Your task to perform on an android device: Open display settings Image 0: 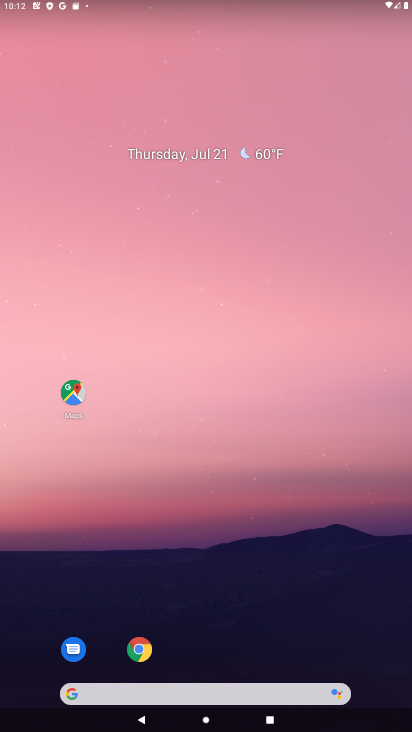
Step 0: drag from (202, 688) to (249, 282)
Your task to perform on an android device: Open display settings Image 1: 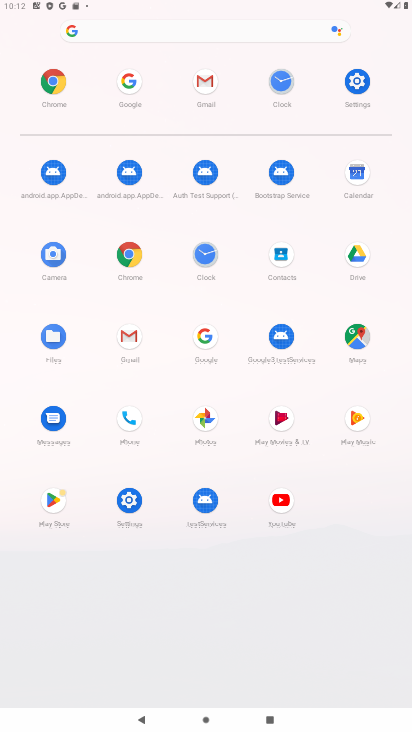
Step 1: click (357, 83)
Your task to perform on an android device: Open display settings Image 2: 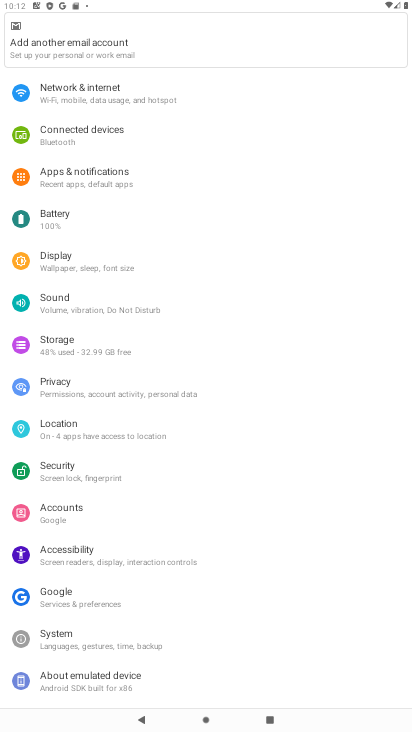
Step 2: click (92, 263)
Your task to perform on an android device: Open display settings Image 3: 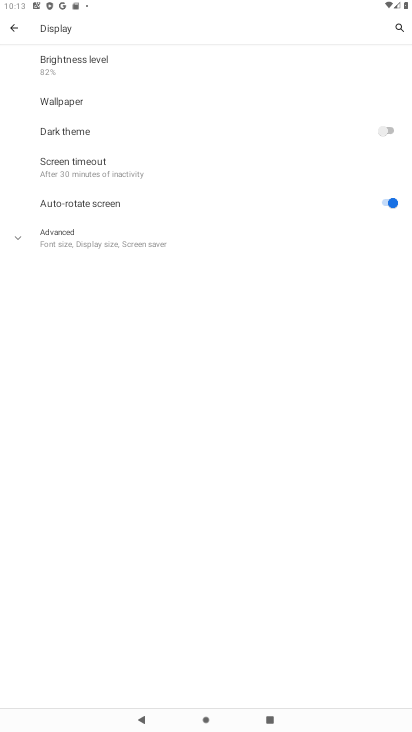
Step 3: task complete